Your task to perform on an android device: Check the weather Image 0: 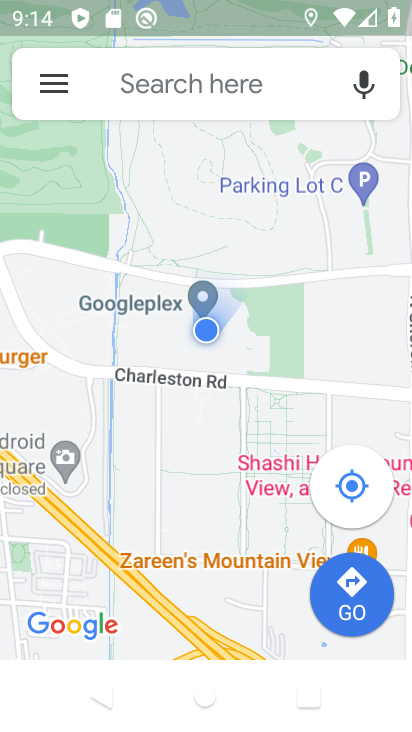
Step 0: press back button
Your task to perform on an android device: Check the weather Image 1: 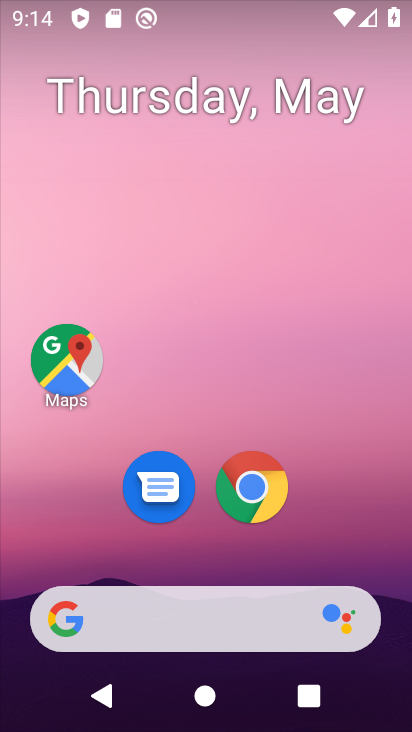
Step 1: click (144, 611)
Your task to perform on an android device: Check the weather Image 2: 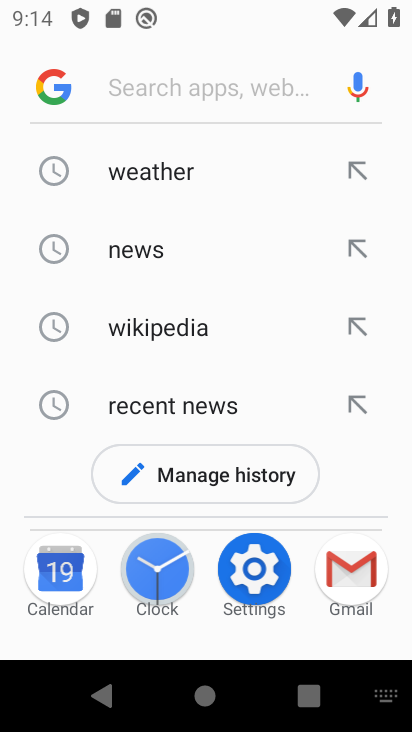
Step 2: click (156, 165)
Your task to perform on an android device: Check the weather Image 3: 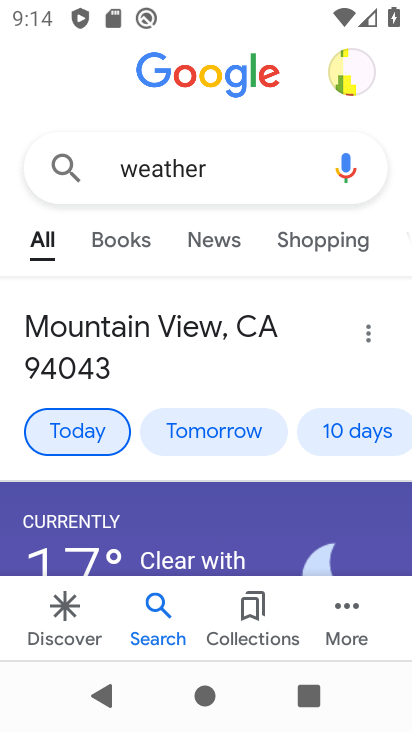
Step 3: task complete